Your task to perform on an android device: add a label to a message in the gmail app Image 0: 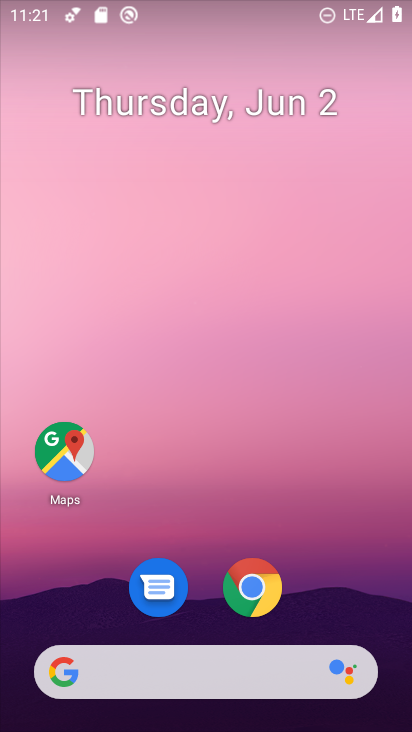
Step 0: drag from (355, 601) to (273, 208)
Your task to perform on an android device: add a label to a message in the gmail app Image 1: 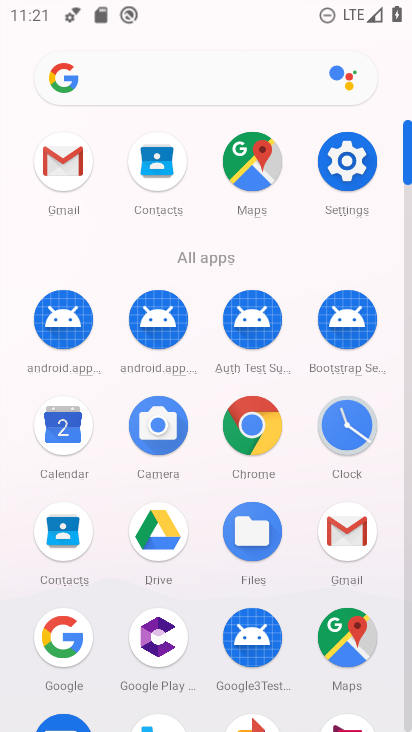
Step 1: click (61, 171)
Your task to perform on an android device: add a label to a message in the gmail app Image 2: 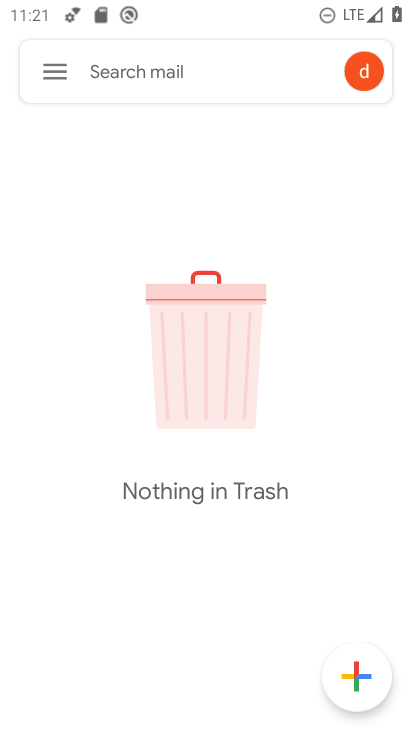
Step 2: click (47, 79)
Your task to perform on an android device: add a label to a message in the gmail app Image 3: 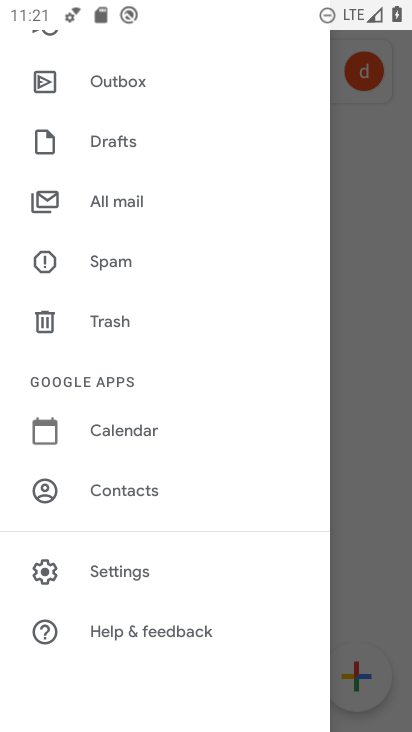
Step 3: click (123, 208)
Your task to perform on an android device: add a label to a message in the gmail app Image 4: 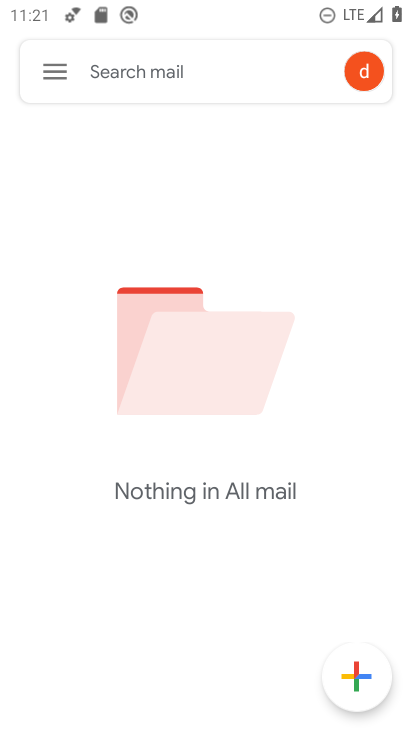
Step 4: task complete